Your task to perform on an android device: Open eBay Image 0: 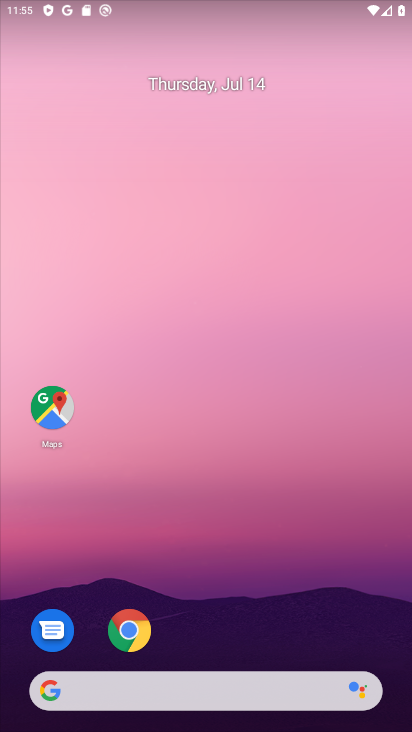
Step 0: drag from (186, 644) to (230, 188)
Your task to perform on an android device: Open eBay Image 1: 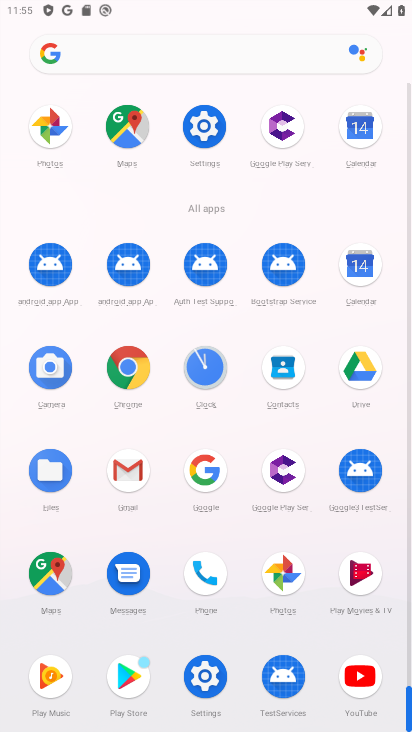
Step 1: click (108, 70)
Your task to perform on an android device: Open eBay Image 2: 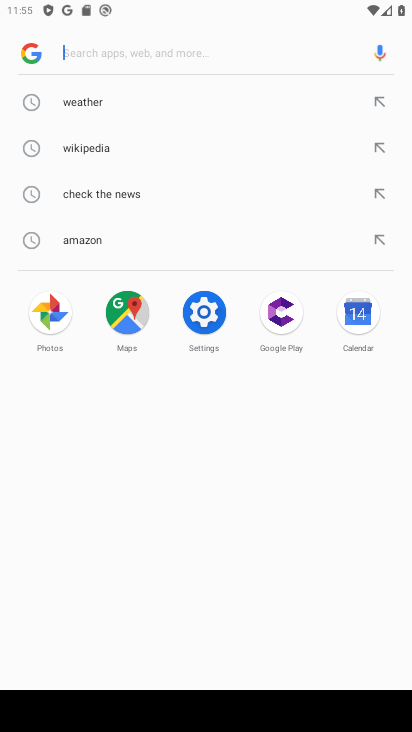
Step 2: type "ebay"
Your task to perform on an android device: Open eBay Image 3: 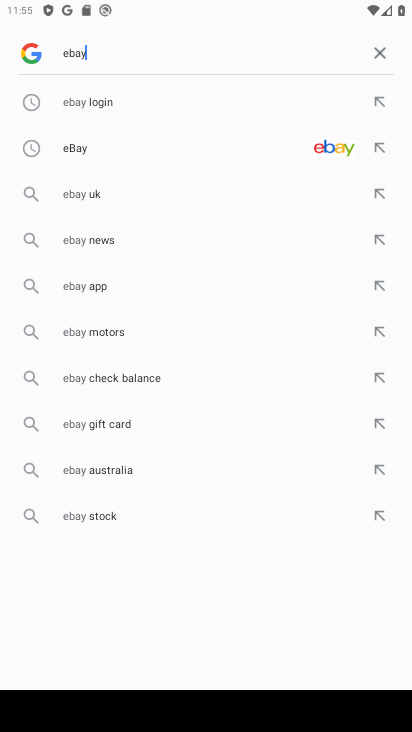
Step 3: click (77, 156)
Your task to perform on an android device: Open eBay Image 4: 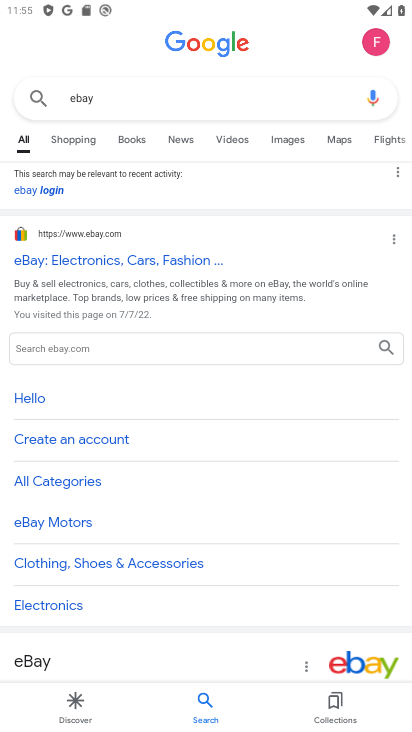
Step 4: drag from (185, 586) to (252, 115)
Your task to perform on an android device: Open eBay Image 5: 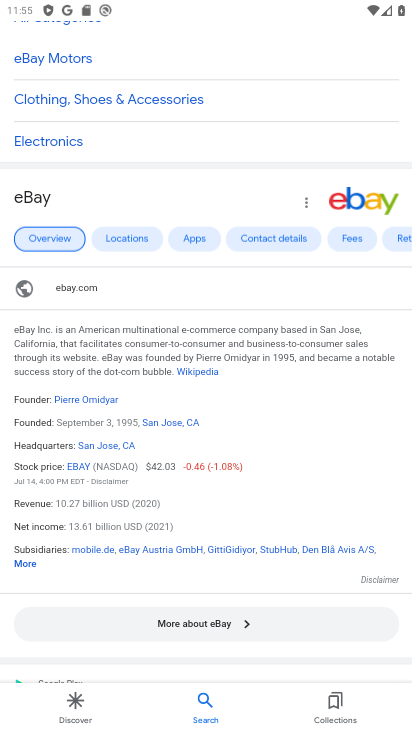
Step 5: drag from (274, 276) to (346, 705)
Your task to perform on an android device: Open eBay Image 6: 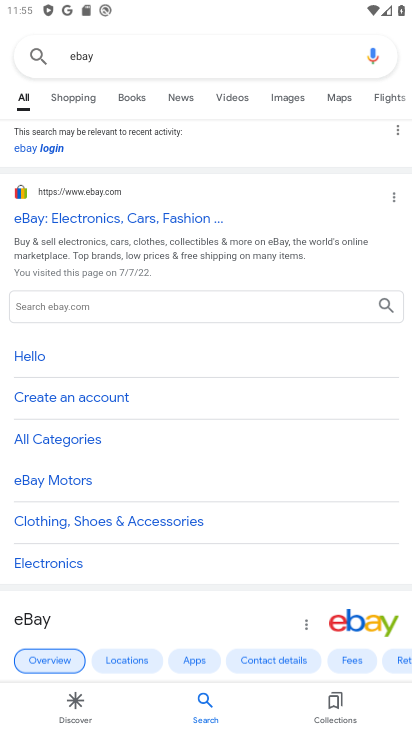
Step 6: click (69, 219)
Your task to perform on an android device: Open eBay Image 7: 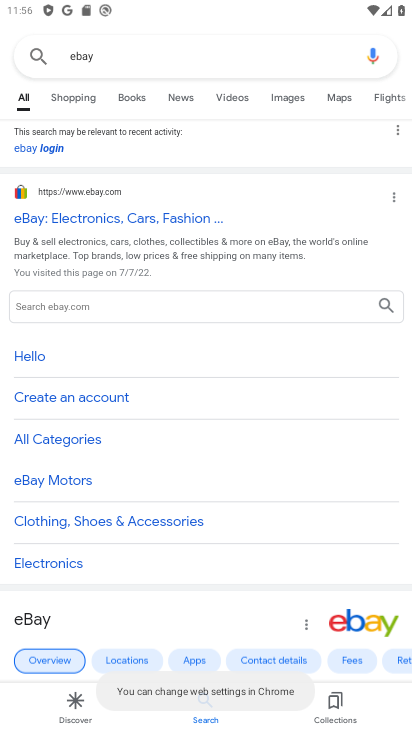
Step 7: drag from (200, 420) to (249, 131)
Your task to perform on an android device: Open eBay Image 8: 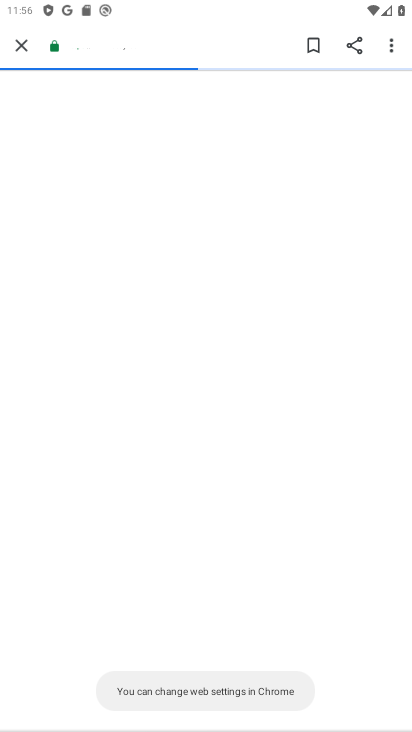
Step 8: drag from (221, 545) to (222, 244)
Your task to perform on an android device: Open eBay Image 9: 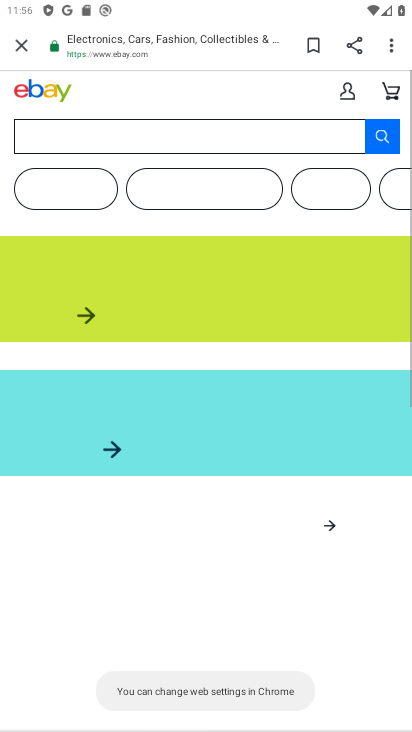
Step 9: click (274, 264)
Your task to perform on an android device: Open eBay Image 10: 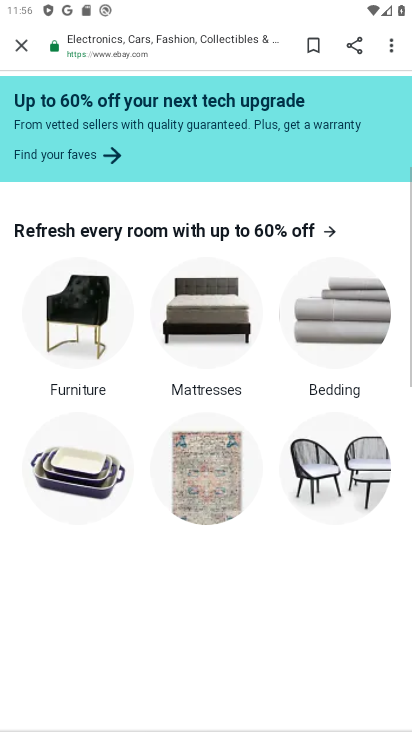
Step 10: task complete